Your task to perform on an android device: Go to eBay Image 0: 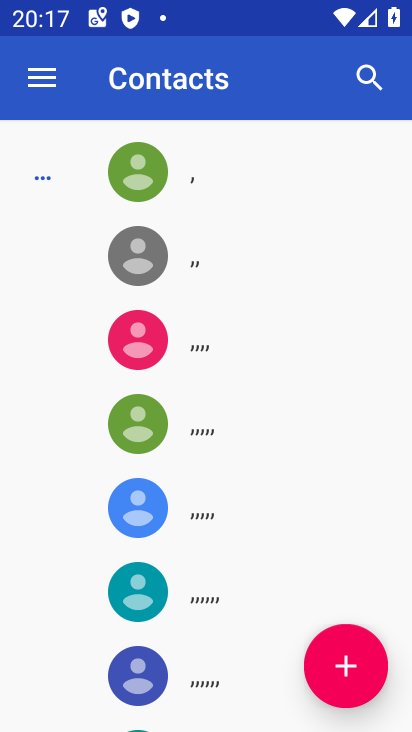
Step 0: press home button
Your task to perform on an android device: Go to eBay Image 1: 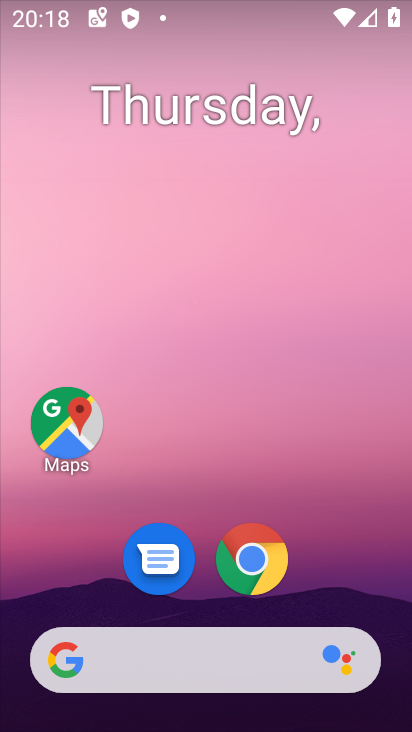
Step 1: click (275, 578)
Your task to perform on an android device: Go to eBay Image 2: 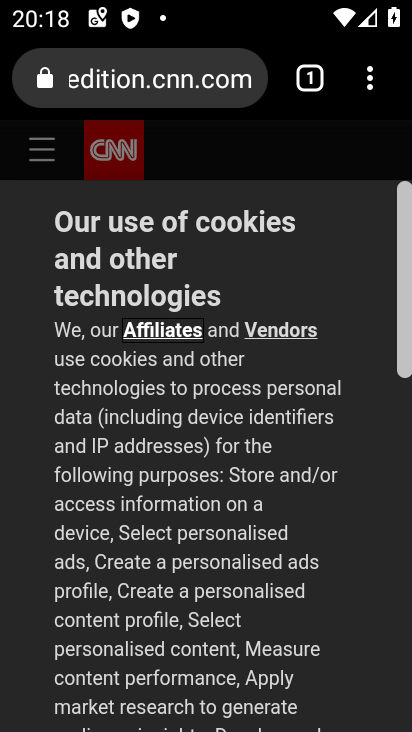
Step 2: click (132, 86)
Your task to perform on an android device: Go to eBay Image 3: 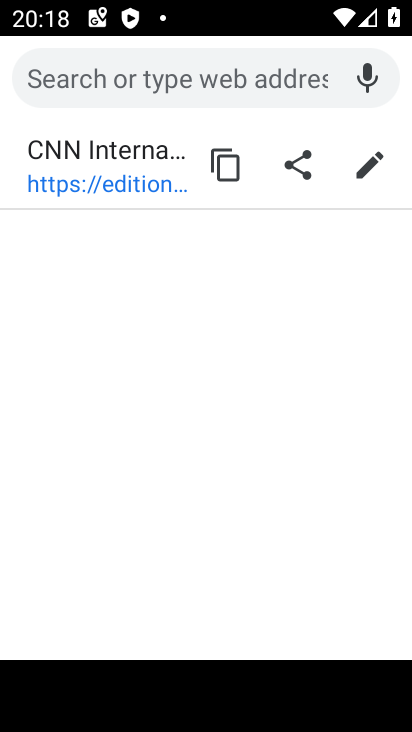
Step 3: type "ebay"
Your task to perform on an android device: Go to eBay Image 4: 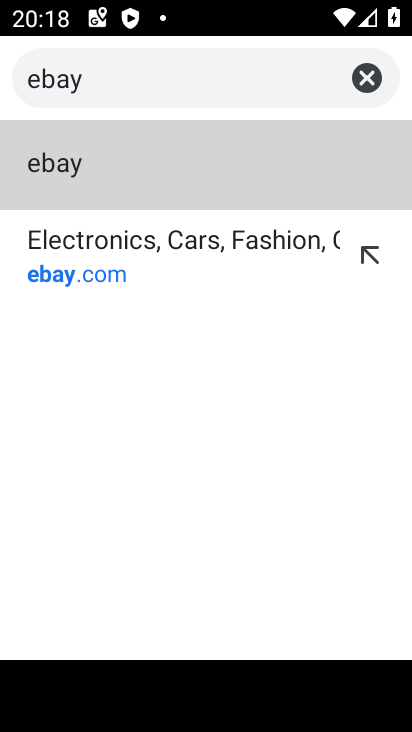
Step 4: click (213, 253)
Your task to perform on an android device: Go to eBay Image 5: 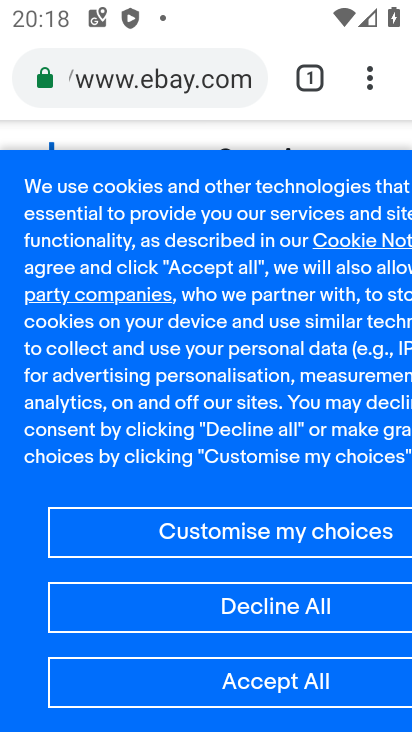
Step 5: task complete